Your task to perform on an android device: Open settings Image 0: 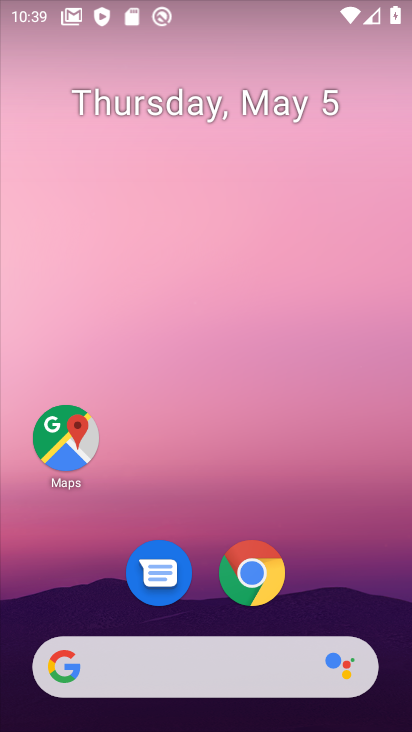
Step 0: drag from (49, 545) to (256, 57)
Your task to perform on an android device: Open settings Image 1: 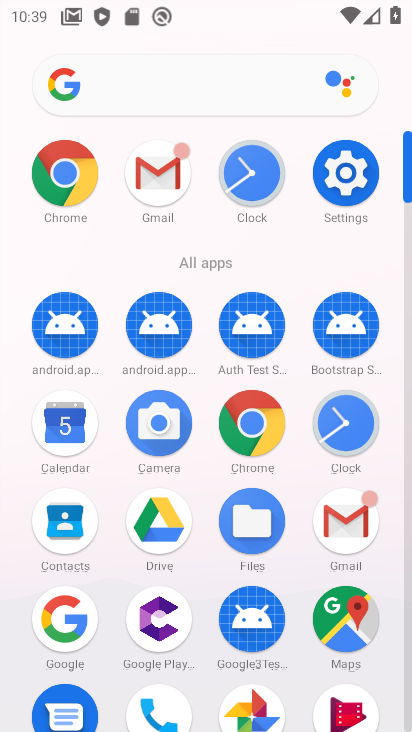
Step 1: click (338, 179)
Your task to perform on an android device: Open settings Image 2: 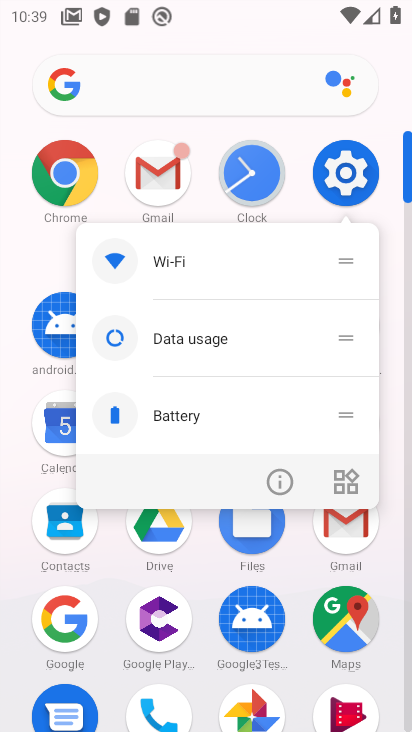
Step 2: click (283, 482)
Your task to perform on an android device: Open settings Image 3: 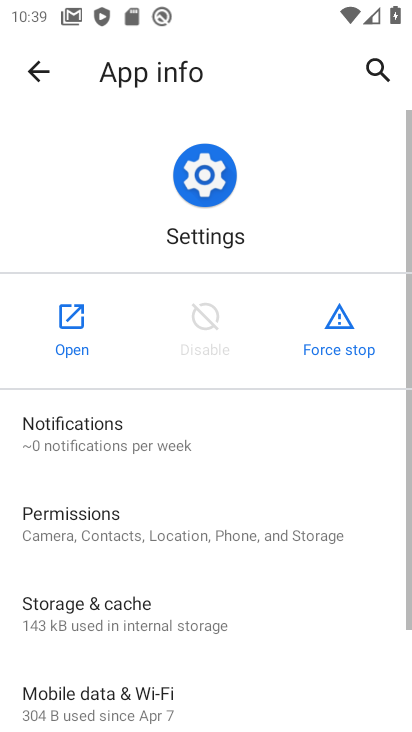
Step 3: click (81, 326)
Your task to perform on an android device: Open settings Image 4: 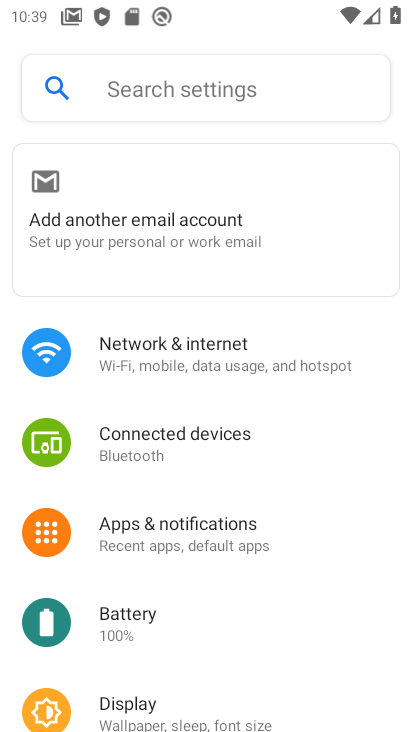
Step 4: task complete